Your task to perform on an android device: Open Google Image 0: 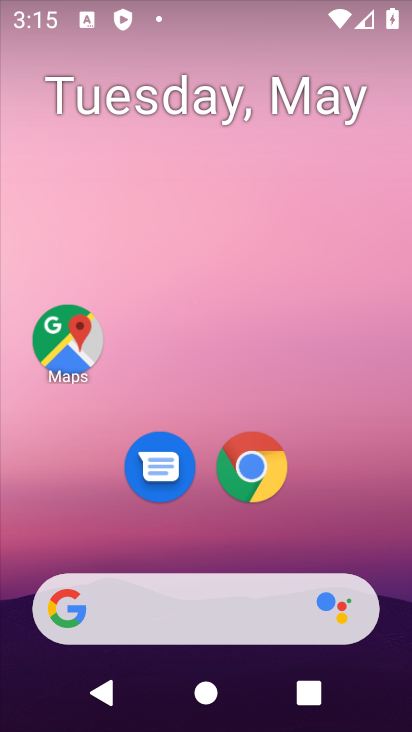
Step 0: click (275, 454)
Your task to perform on an android device: Open Google Image 1: 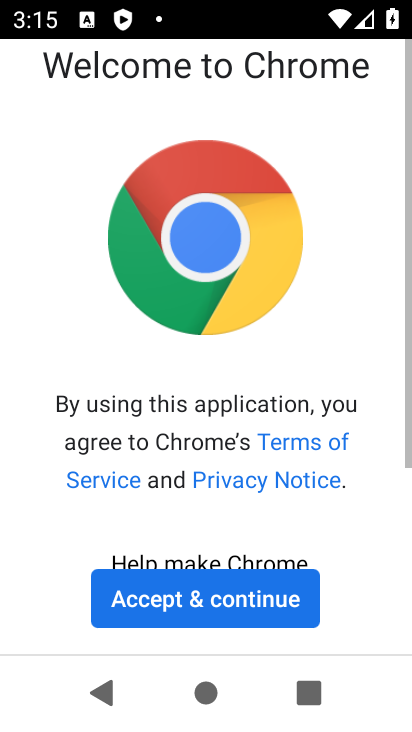
Step 1: task complete